Your task to perform on an android device: open wifi settings Image 0: 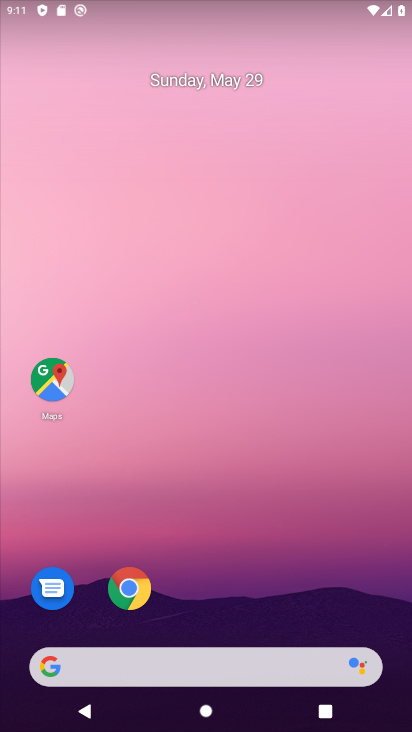
Step 0: press home button
Your task to perform on an android device: open wifi settings Image 1: 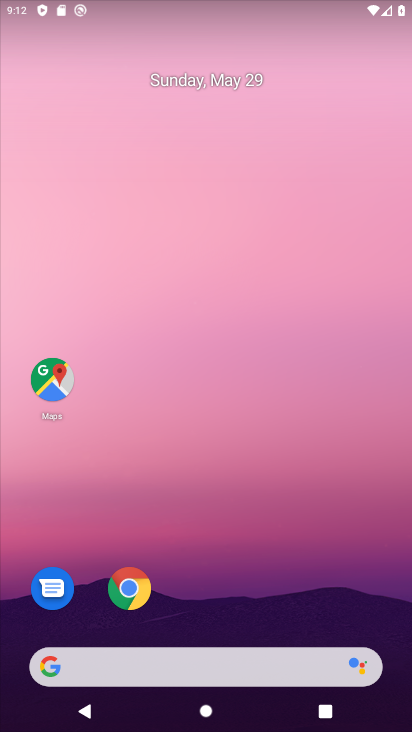
Step 1: drag from (0, 723) to (403, 91)
Your task to perform on an android device: open wifi settings Image 2: 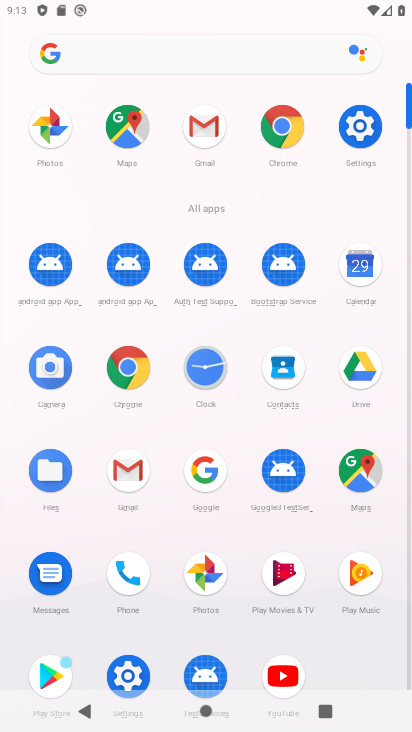
Step 2: click (354, 133)
Your task to perform on an android device: open wifi settings Image 3: 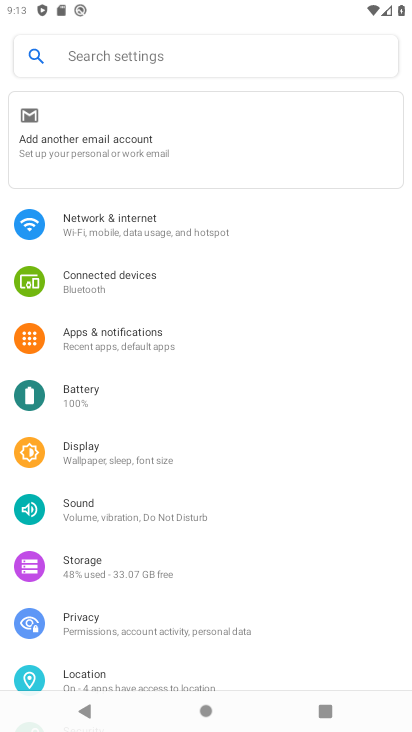
Step 3: click (130, 228)
Your task to perform on an android device: open wifi settings Image 4: 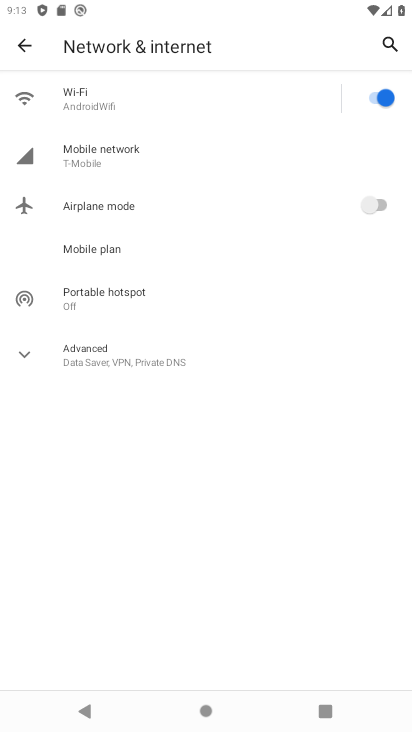
Step 4: click (150, 100)
Your task to perform on an android device: open wifi settings Image 5: 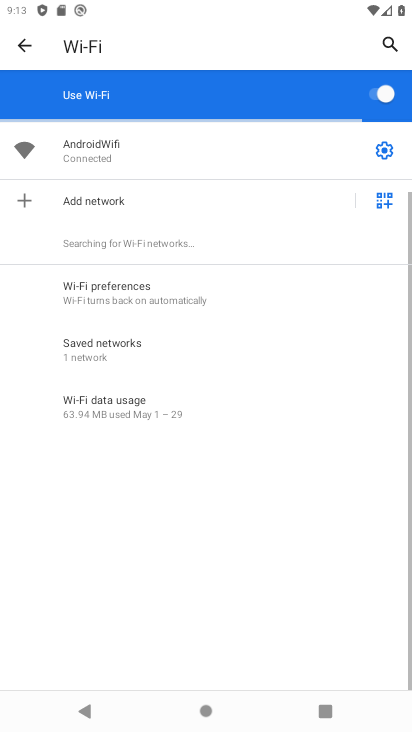
Step 5: click (384, 160)
Your task to perform on an android device: open wifi settings Image 6: 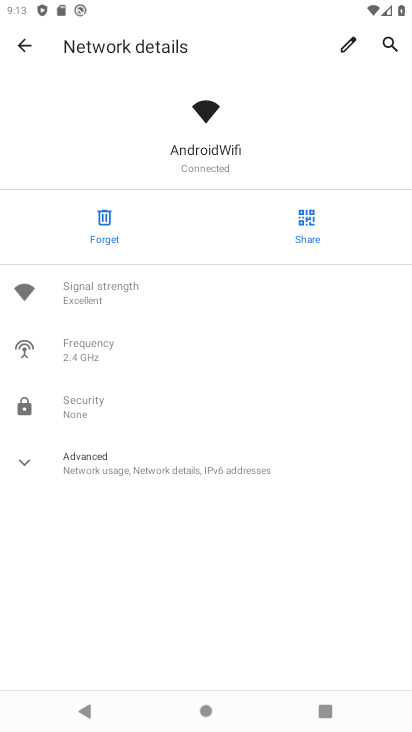
Step 6: task complete